Your task to perform on an android device: Open settings Image 0: 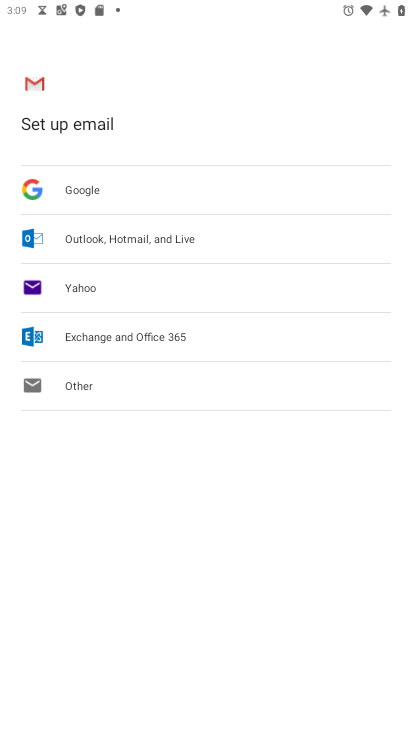
Step 0: press home button
Your task to perform on an android device: Open settings Image 1: 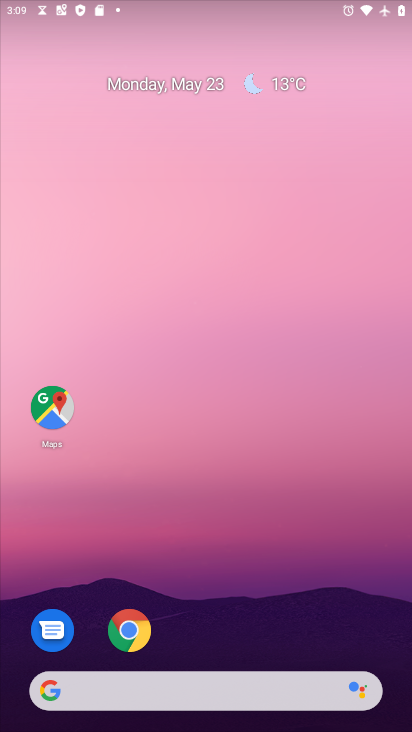
Step 1: drag from (307, 555) to (235, 34)
Your task to perform on an android device: Open settings Image 2: 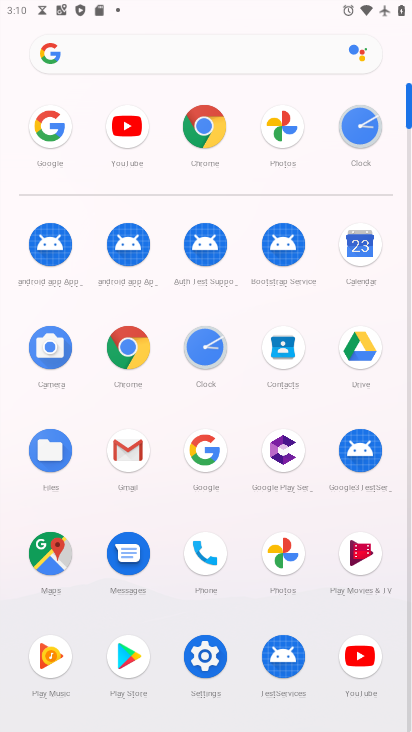
Step 2: click (214, 654)
Your task to perform on an android device: Open settings Image 3: 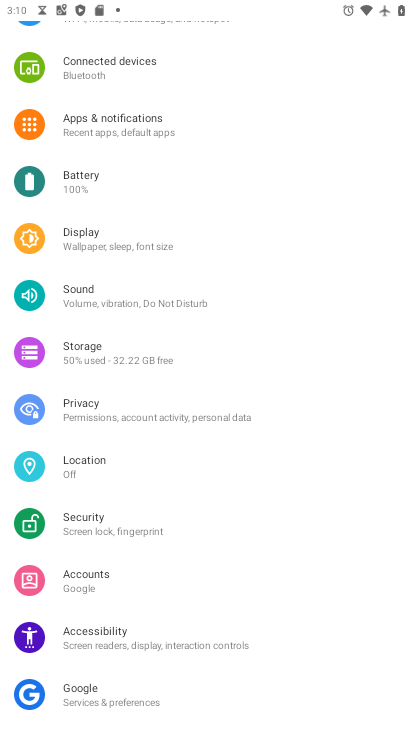
Step 3: task complete